Your task to perform on an android device: Open network settings Image 0: 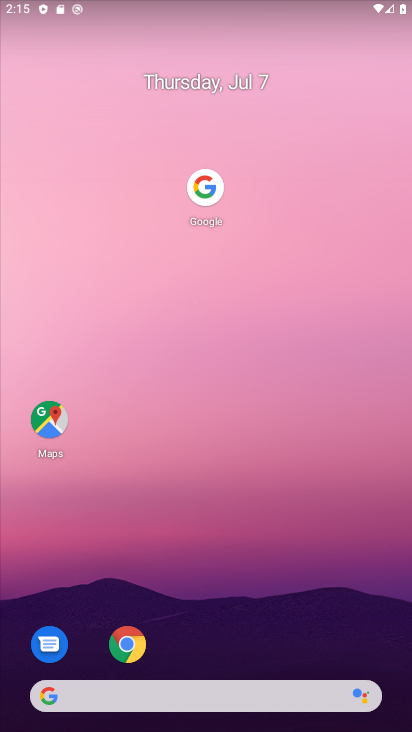
Step 0: drag from (175, 704) to (305, 124)
Your task to perform on an android device: Open network settings Image 1: 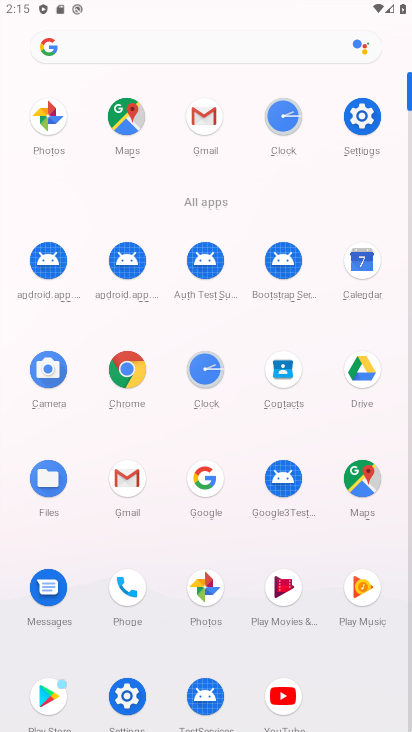
Step 1: click (360, 116)
Your task to perform on an android device: Open network settings Image 2: 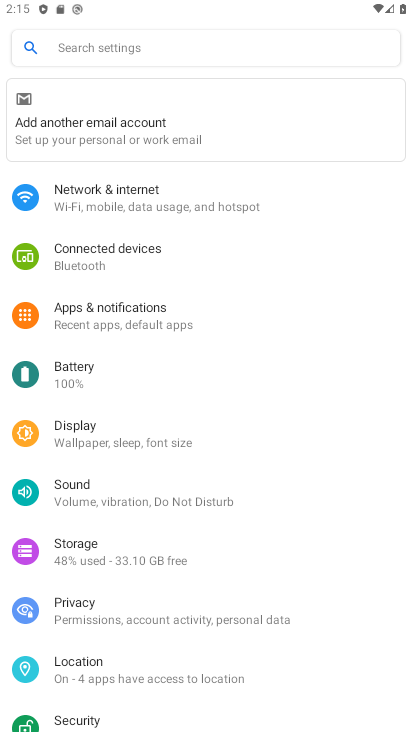
Step 2: click (116, 184)
Your task to perform on an android device: Open network settings Image 3: 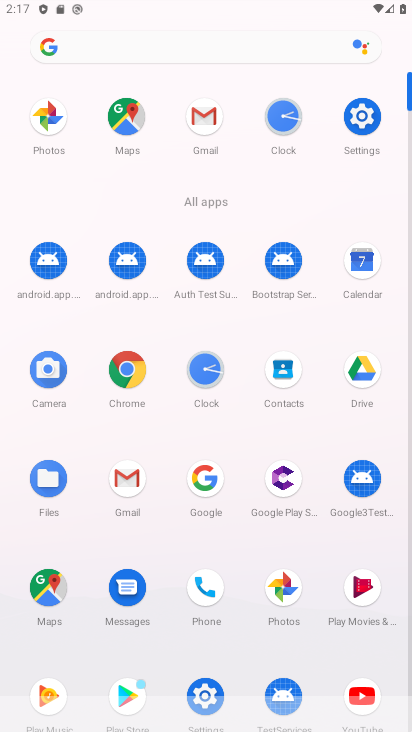
Step 3: task complete